Your task to perform on an android device: add a contact in the contacts app Image 0: 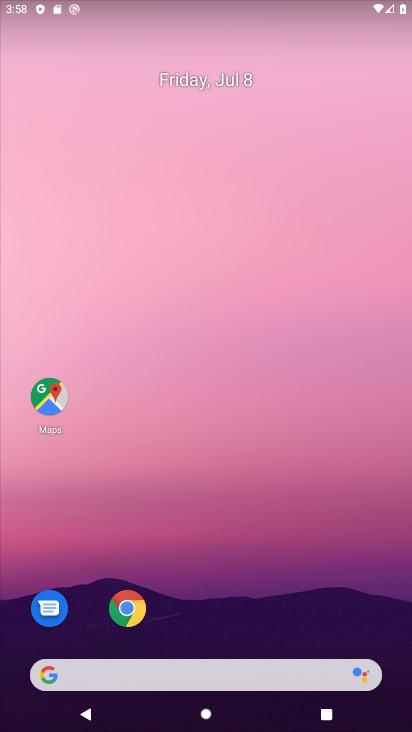
Step 0: press home button
Your task to perform on an android device: add a contact in the contacts app Image 1: 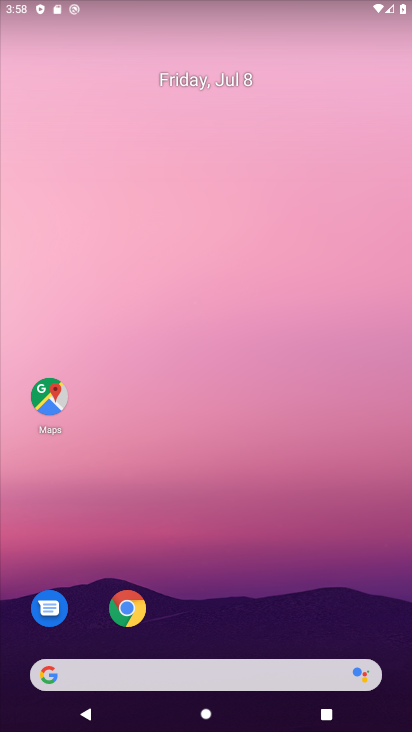
Step 1: drag from (230, 577) to (254, 112)
Your task to perform on an android device: add a contact in the contacts app Image 2: 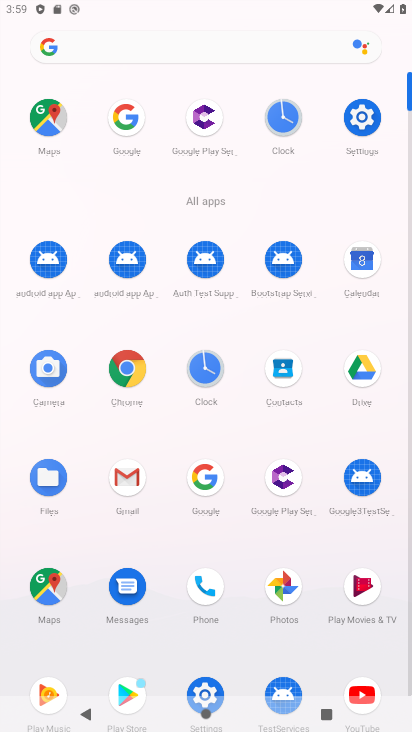
Step 2: click (286, 369)
Your task to perform on an android device: add a contact in the contacts app Image 3: 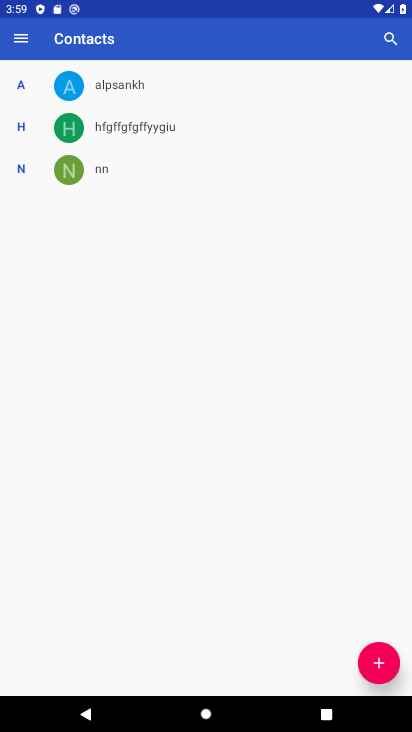
Step 3: click (375, 670)
Your task to perform on an android device: add a contact in the contacts app Image 4: 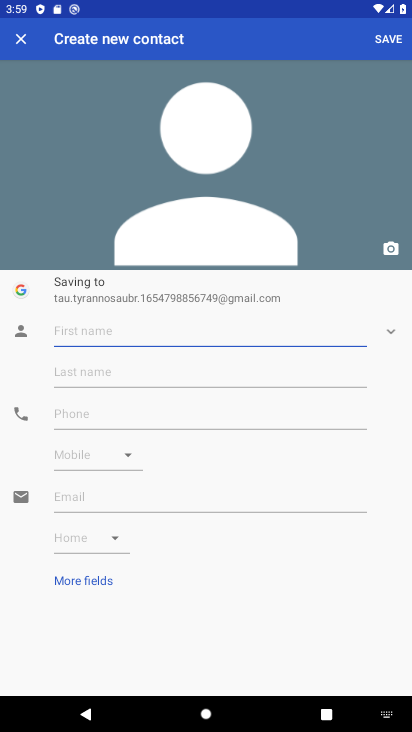
Step 4: type "ffffffff"
Your task to perform on an android device: add a contact in the contacts app Image 5: 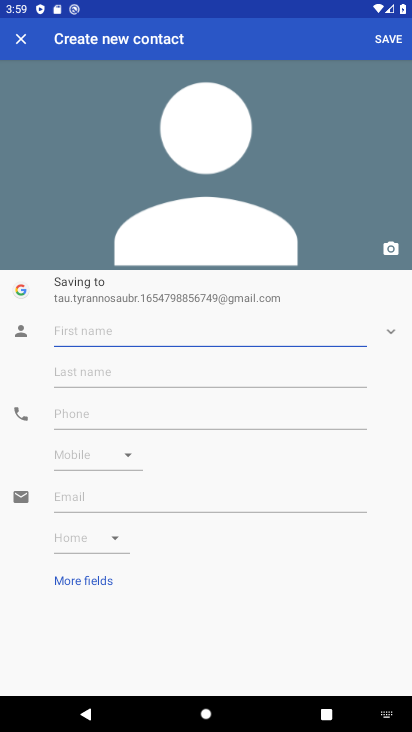
Step 5: click (105, 334)
Your task to perform on an android device: add a contact in the contacts app Image 6: 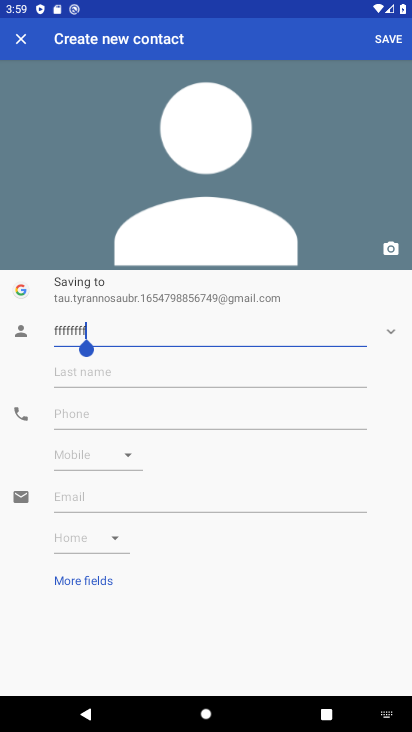
Step 6: click (75, 419)
Your task to perform on an android device: add a contact in the contacts app Image 7: 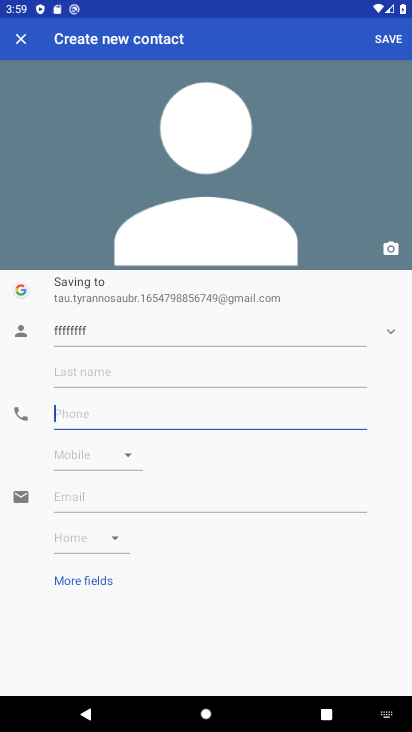
Step 7: type "44444444444"
Your task to perform on an android device: add a contact in the contacts app Image 8: 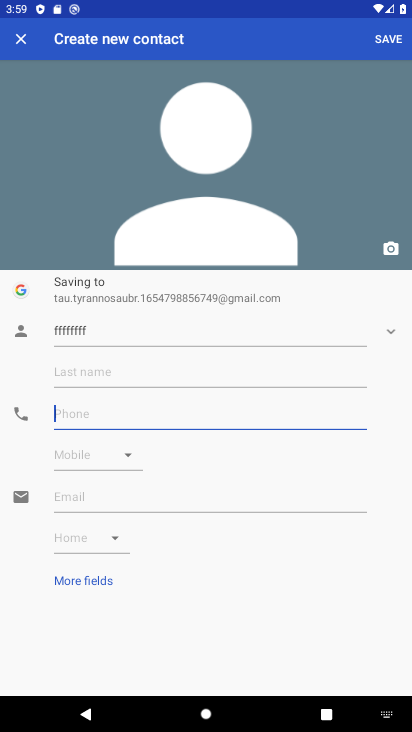
Step 8: click (132, 421)
Your task to perform on an android device: add a contact in the contacts app Image 9: 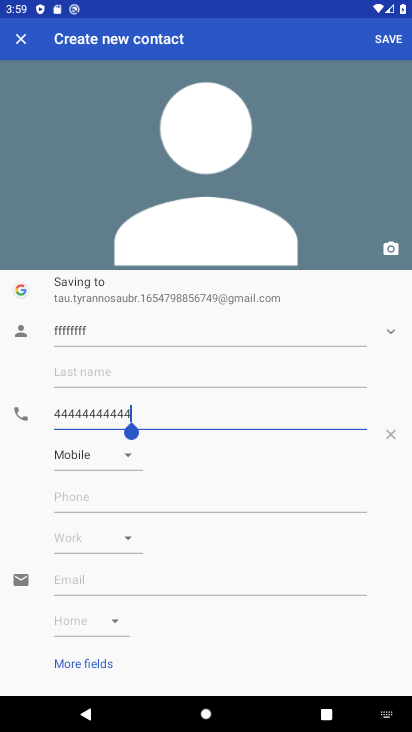
Step 9: click (398, 35)
Your task to perform on an android device: add a contact in the contacts app Image 10: 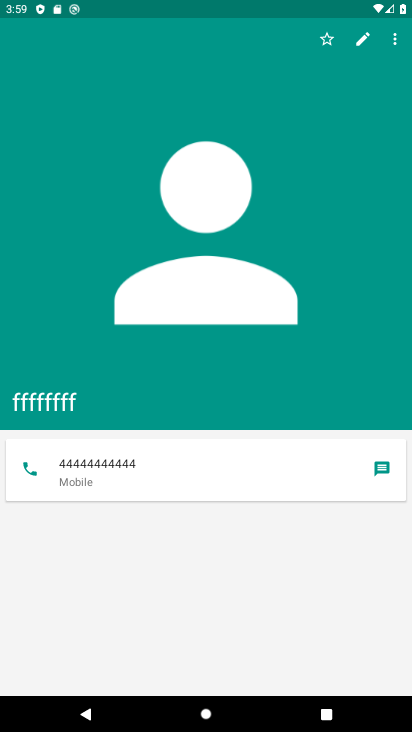
Step 10: task complete